Your task to perform on an android device: open the mobile data screen to see how much data has been used Image 0: 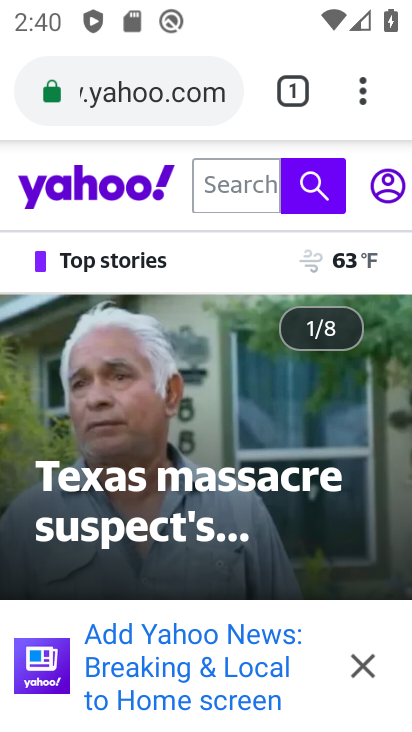
Step 0: press home button
Your task to perform on an android device: open the mobile data screen to see how much data has been used Image 1: 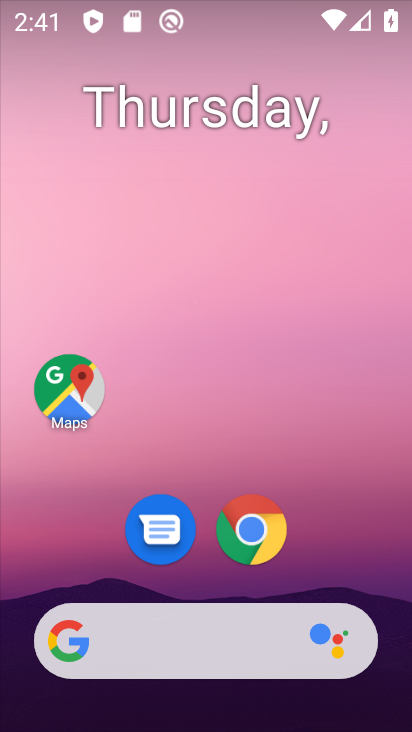
Step 1: drag from (201, 572) to (190, 244)
Your task to perform on an android device: open the mobile data screen to see how much data has been used Image 2: 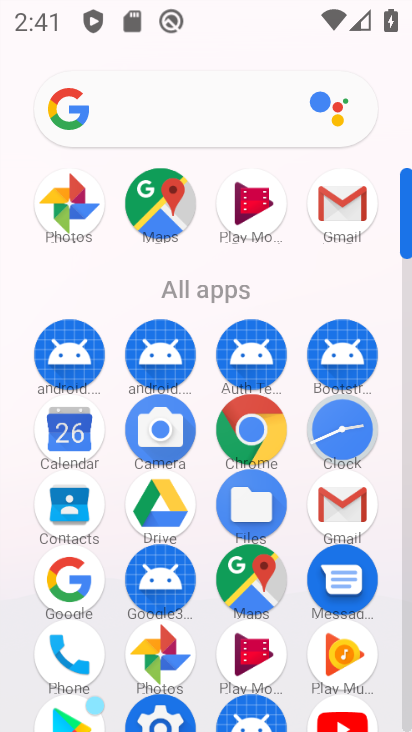
Step 2: drag from (203, 644) to (245, 297)
Your task to perform on an android device: open the mobile data screen to see how much data has been used Image 3: 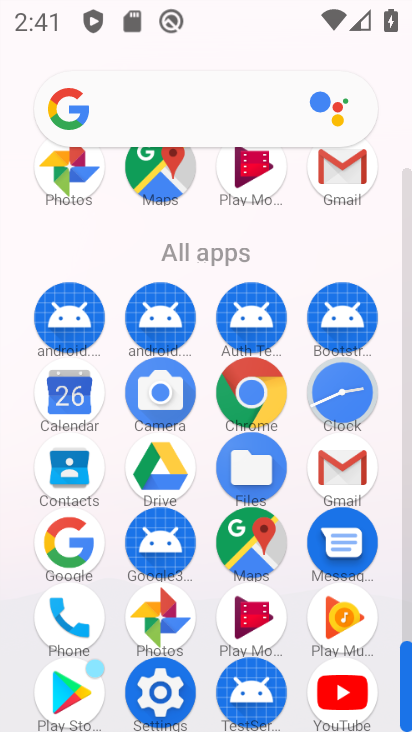
Step 3: click (159, 686)
Your task to perform on an android device: open the mobile data screen to see how much data has been used Image 4: 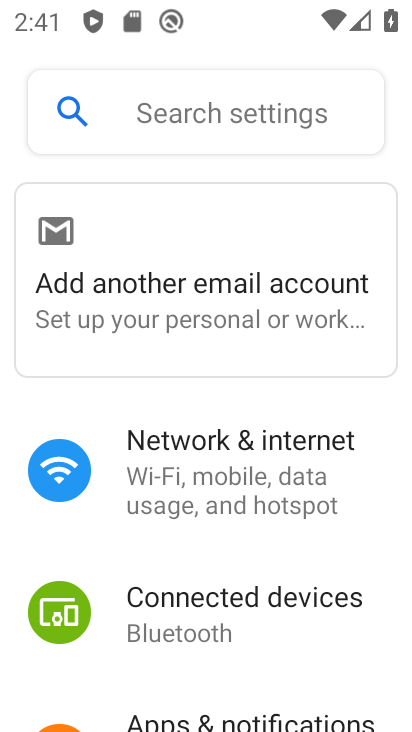
Step 4: click (204, 460)
Your task to perform on an android device: open the mobile data screen to see how much data has been used Image 5: 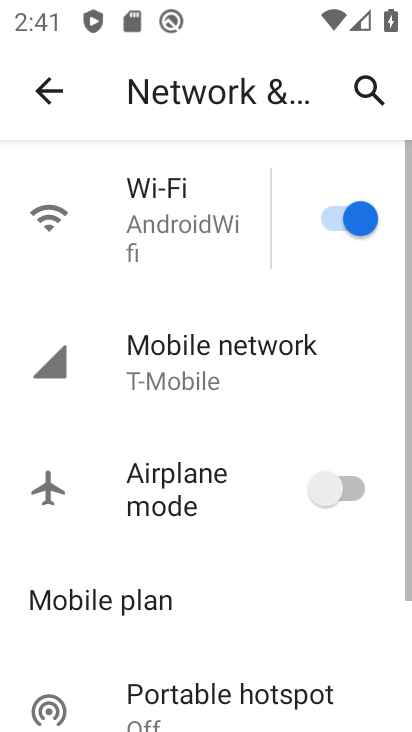
Step 5: click (212, 383)
Your task to perform on an android device: open the mobile data screen to see how much data has been used Image 6: 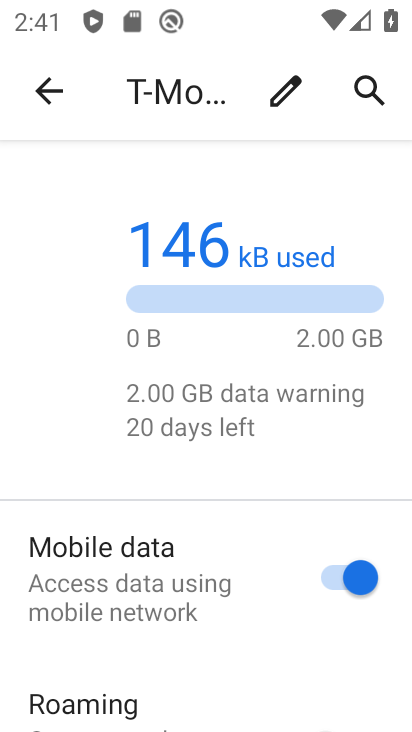
Step 6: task complete